Your task to perform on an android device: Go to settings Image 0: 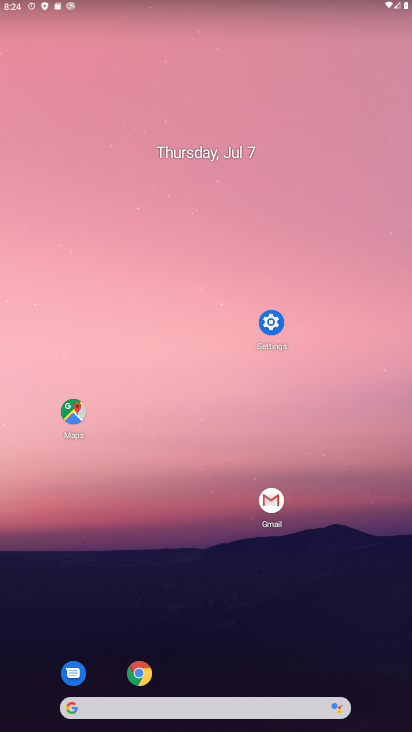
Step 0: click (271, 326)
Your task to perform on an android device: Go to settings Image 1: 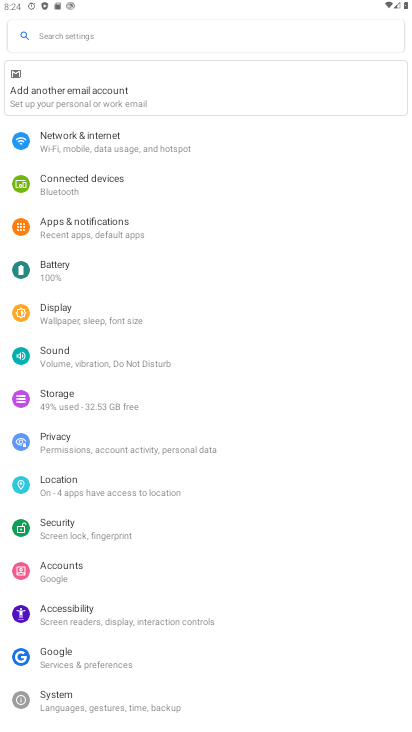
Step 1: task complete